Your task to perform on an android device: Find coffee shops on Maps Image 0: 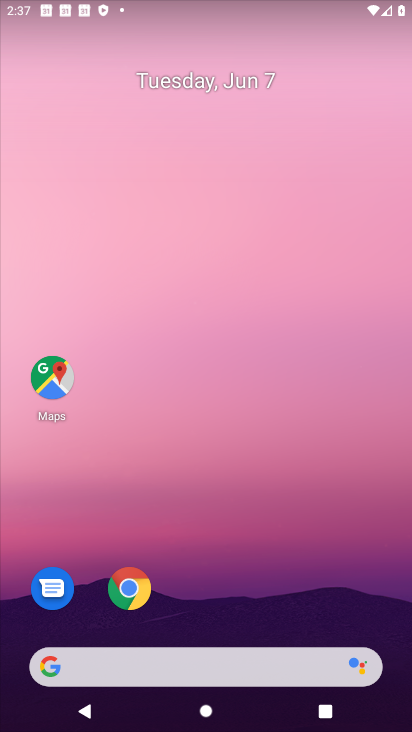
Step 0: drag from (222, 598) to (215, 239)
Your task to perform on an android device: Find coffee shops on Maps Image 1: 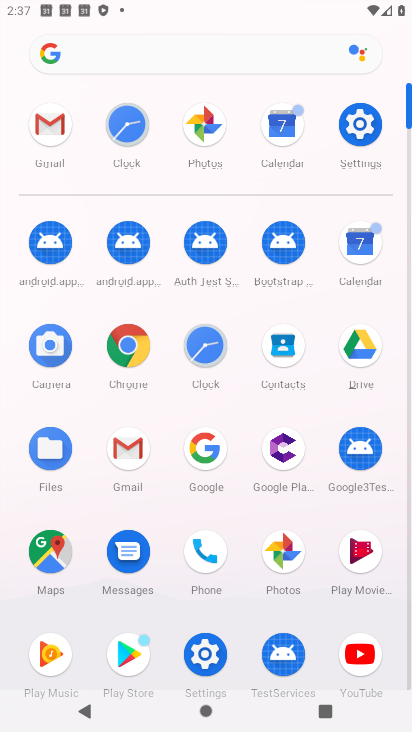
Step 1: click (45, 571)
Your task to perform on an android device: Find coffee shops on Maps Image 2: 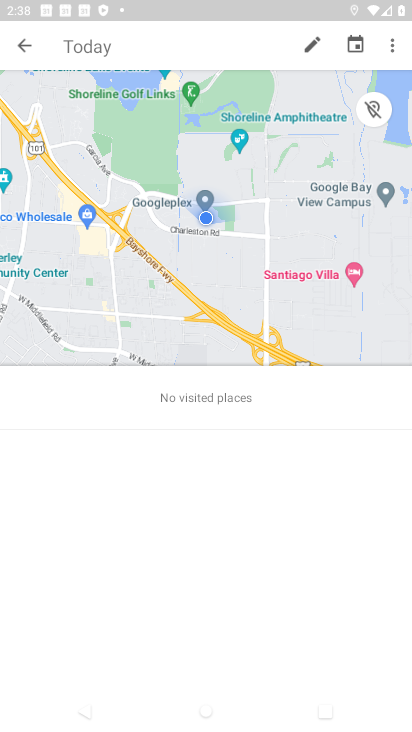
Step 2: task complete